Your task to perform on an android device: Search for sushi restaurants on Maps Image 0: 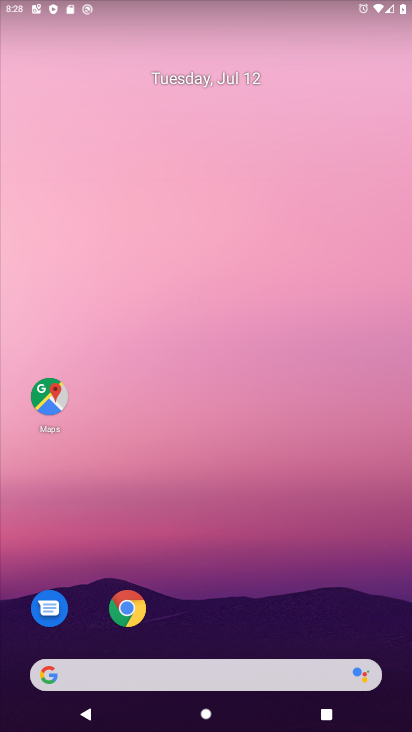
Step 0: click (41, 378)
Your task to perform on an android device: Search for sushi restaurants on Maps Image 1: 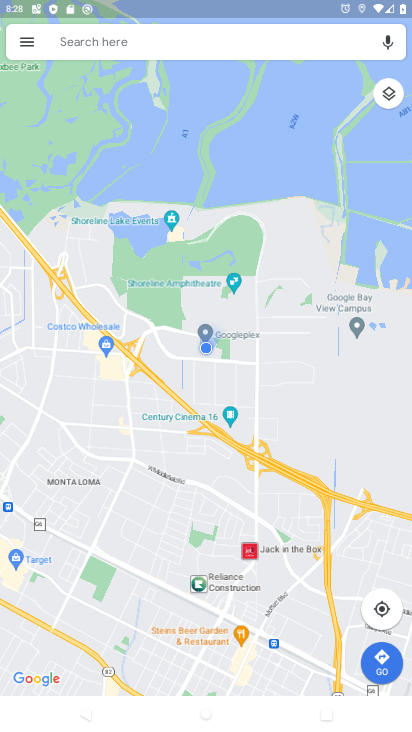
Step 1: click (168, 38)
Your task to perform on an android device: Search for sushi restaurants on Maps Image 2: 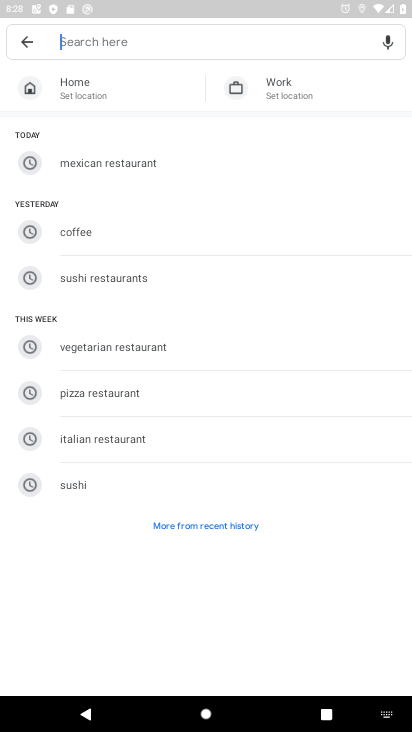
Step 2: type "sushi restaurants"
Your task to perform on an android device: Search for sushi restaurants on Maps Image 3: 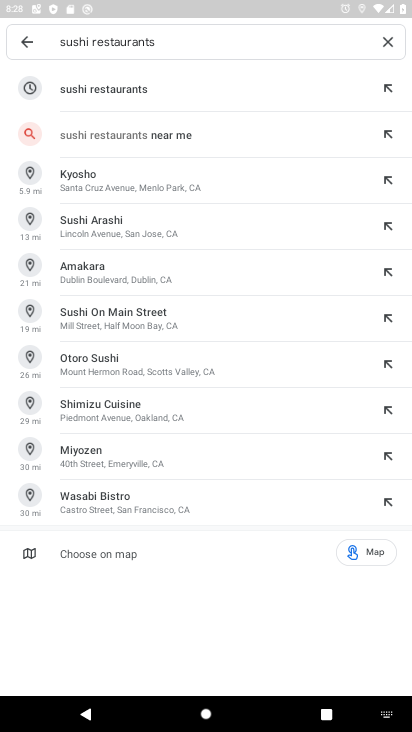
Step 3: click (99, 83)
Your task to perform on an android device: Search for sushi restaurants on Maps Image 4: 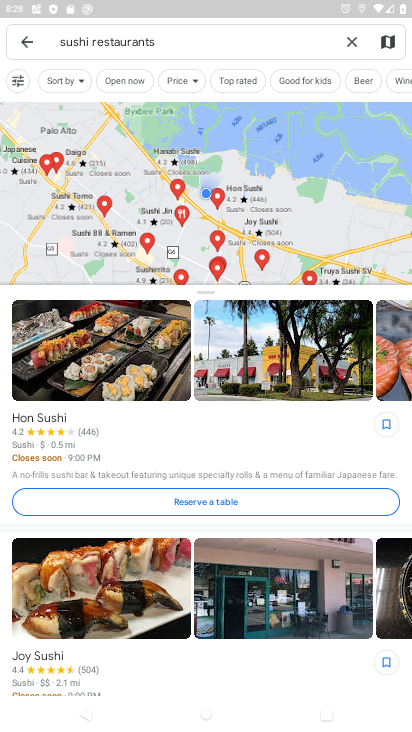
Step 4: task complete